Your task to perform on an android device: show emergency info Image 0: 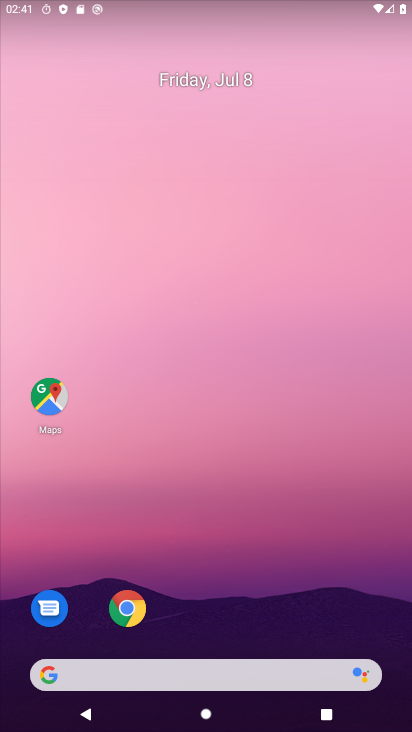
Step 0: click (321, 379)
Your task to perform on an android device: show emergency info Image 1: 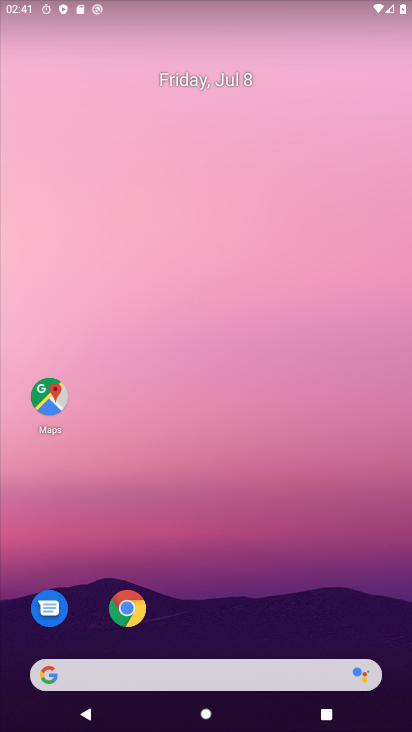
Step 1: drag from (221, 610) to (255, 103)
Your task to perform on an android device: show emergency info Image 2: 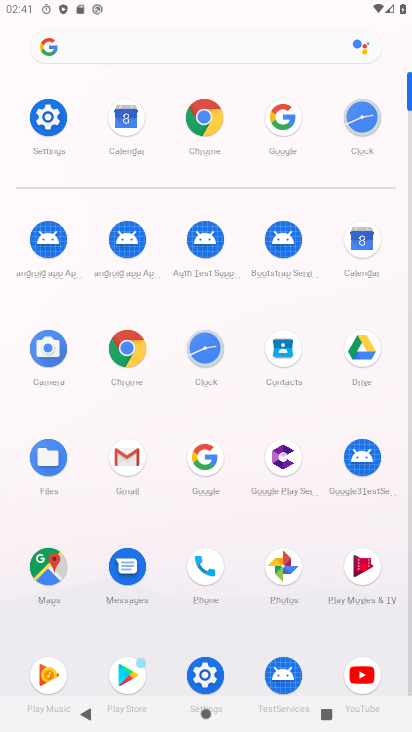
Step 2: click (52, 113)
Your task to perform on an android device: show emergency info Image 3: 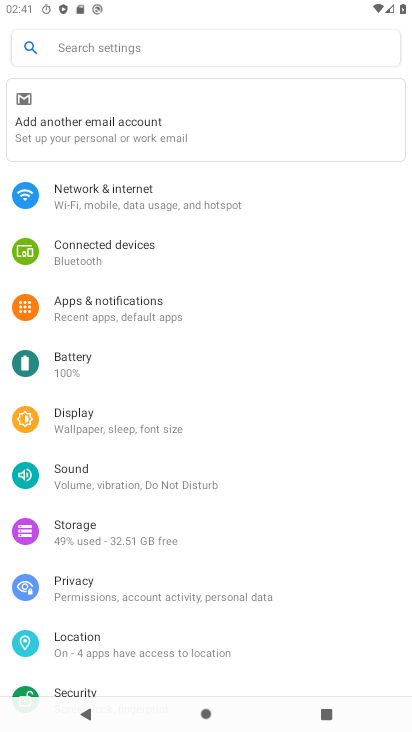
Step 3: drag from (219, 617) to (199, 230)
Your task to perform on an android device: show emergency info Image 4: 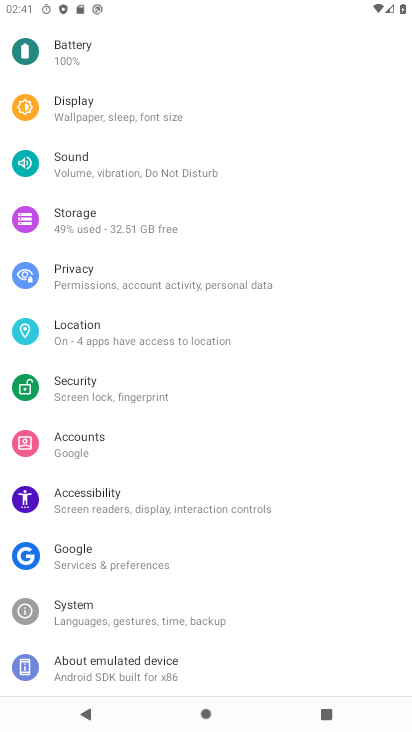
Step 4: drag from (195, 629) to (204, 242)
Your task to perform on an android device: show emergency info Image 5: 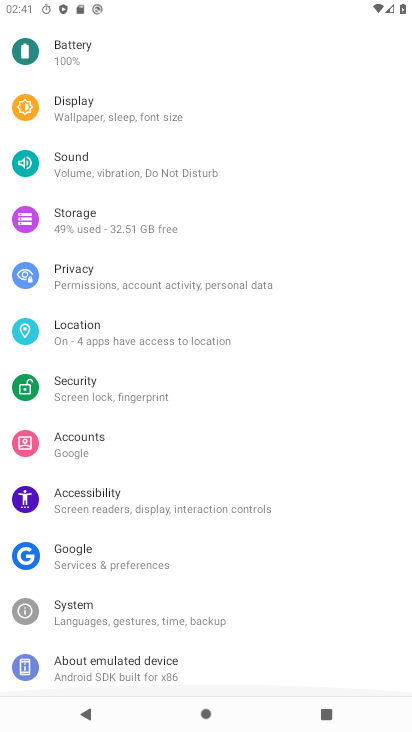
Step 5: click (117, 670)
Your task to perform on an android device: show emergency info Image 6: 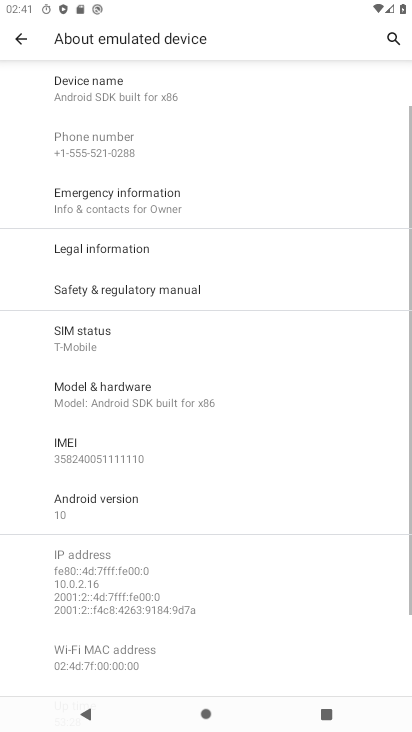
Step 6: click (133, 194)
Your task to perform on an android device: show emergency info Image 7: 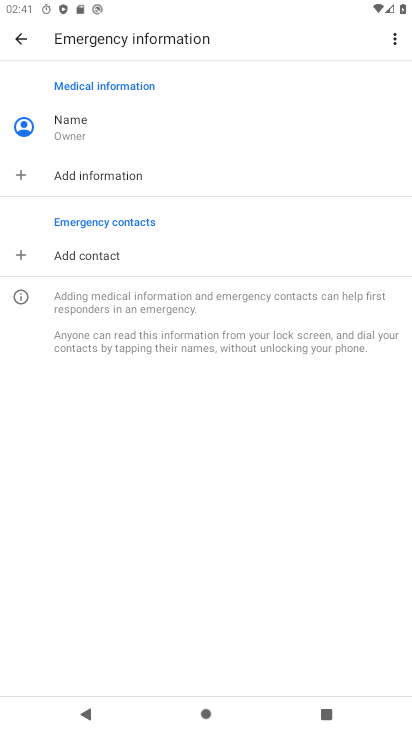
Step 7: task complete